Your task to perform on an android device: Go to network settings Image 0: 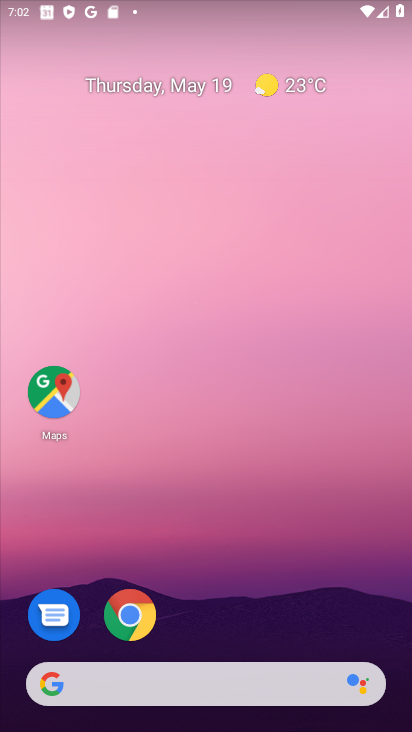
Step 0: drag from (331, 622) to (226, 30)
Your task to perform on an android device: Go to network settings Image 1: 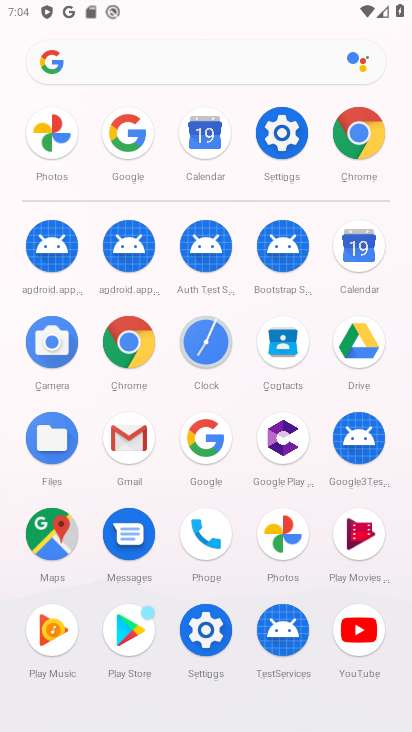
Step 1: click (195, 628)
Your task to perform on an android device: Go to network settings Image 2: 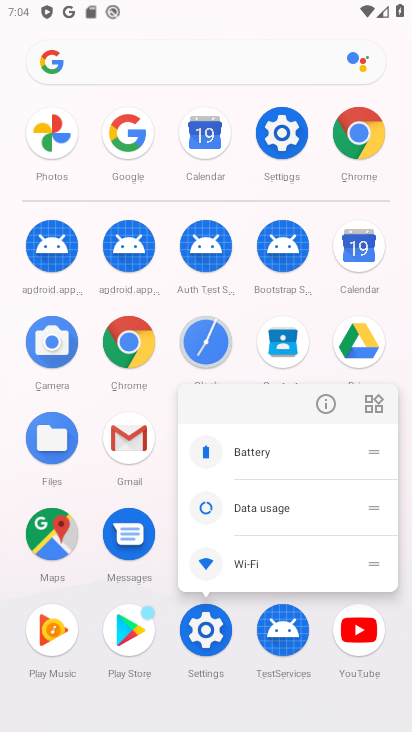
Step 2: click (181, 624)
Your task to perform on an android device: Go to network settings Image 3: 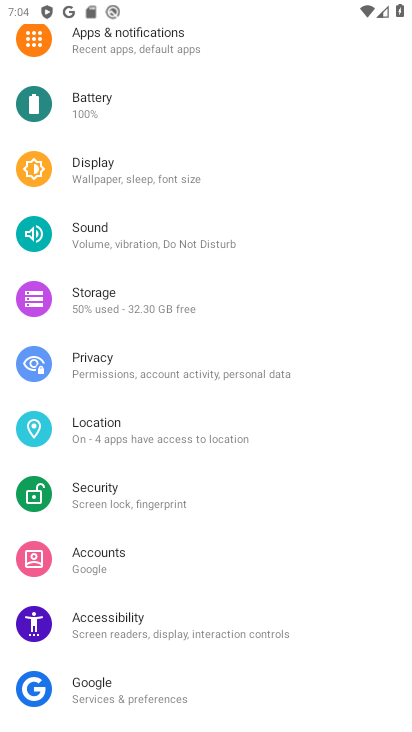
Step 3: drag from (207, 74) to (214, 588)
Your task to perform on an android device: Go to network settings Image 4: 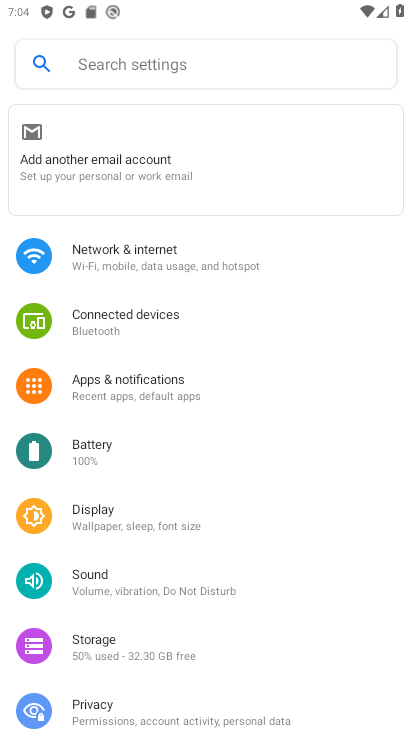
Step 4: click (172, 184)
Your task to perform on an android device: Go to network settings Image 5: 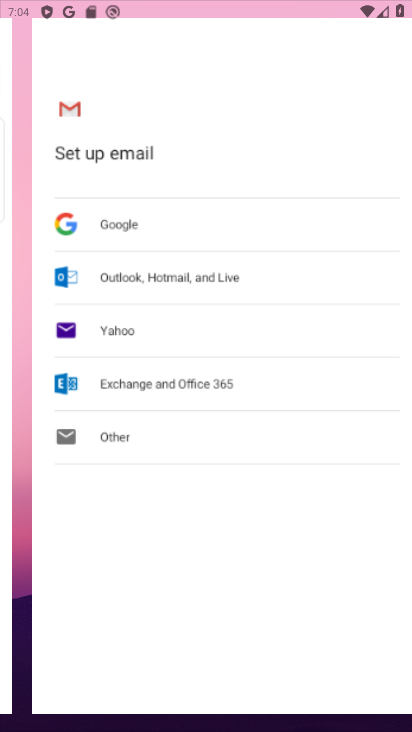
Step 5: click (164, 240)
Your task to perform on an android device: Go to network settings Image 6: 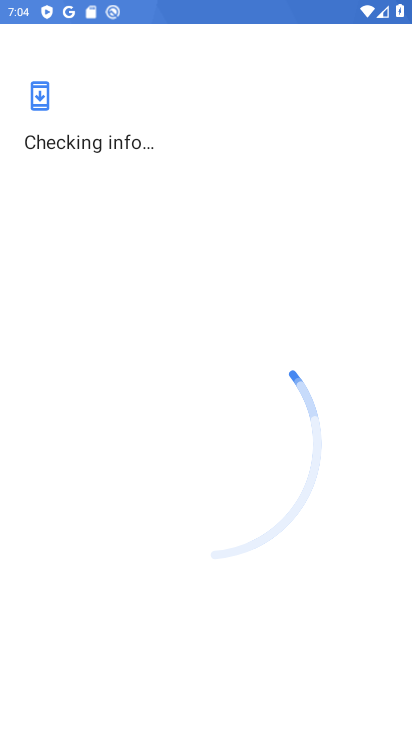
Step 6: press back button
Your task to perform on an android device: Go to network settings Image 7: 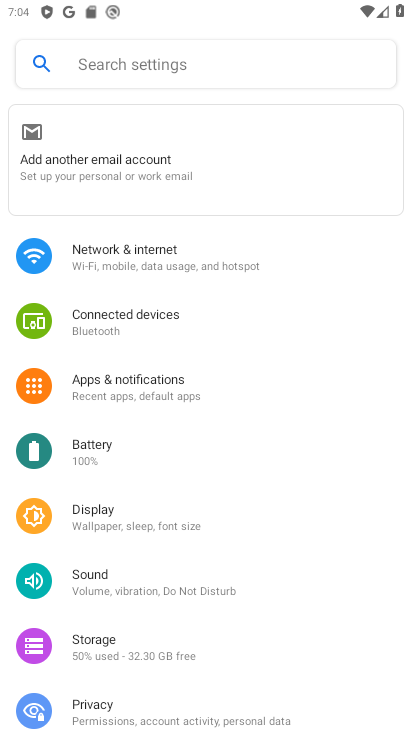
Step 7: click (207, 277)
Your task to perform on an android device: Go to network settings Image 8: 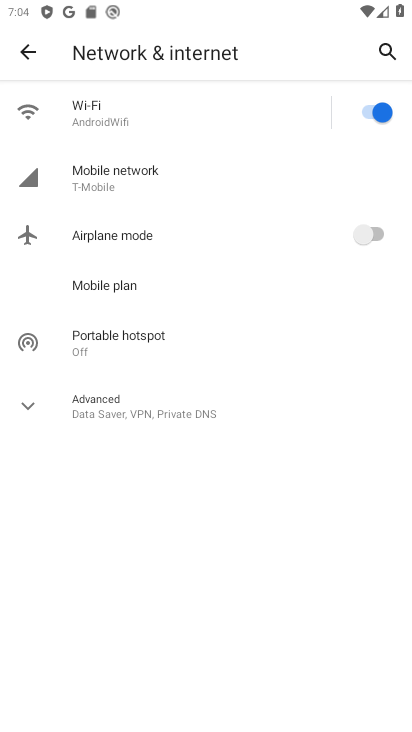
Step 8: task complete